Your task to perform on an android device: show emergency info Image 0: 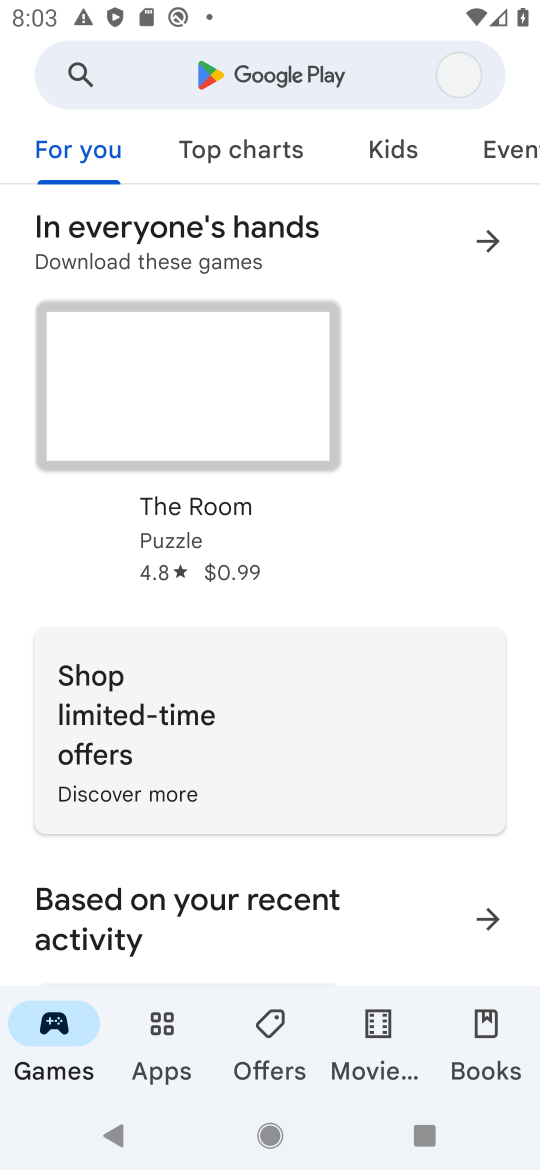
Step 0: press home button
Your task to perform on an android device: show emergency info Image 1: 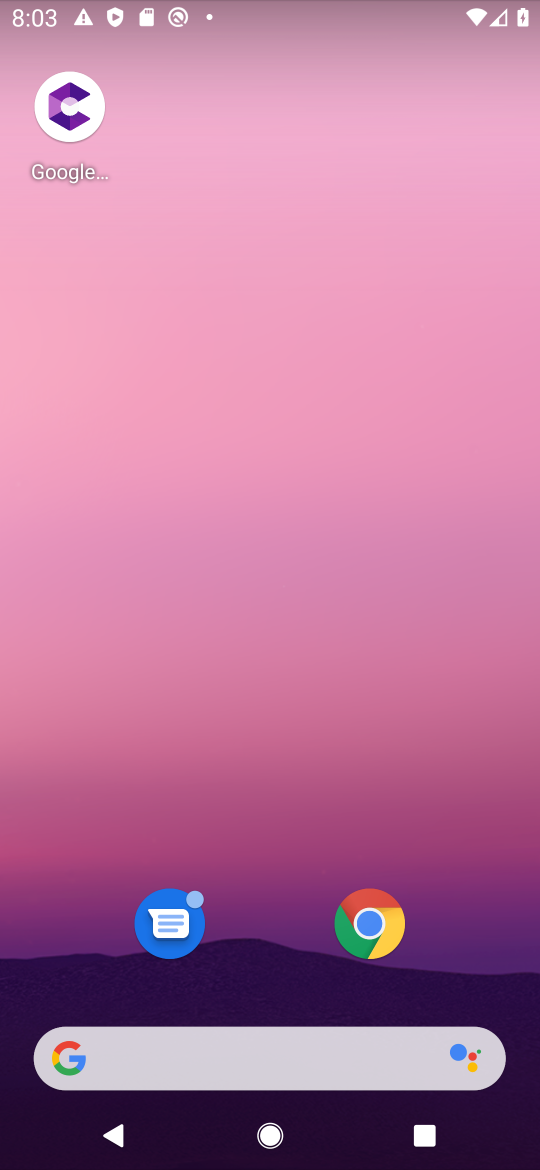
Step 1: drag from (518, 1111) to (412, 136)
Your task to perform on an android device: show emergency info Image 2: 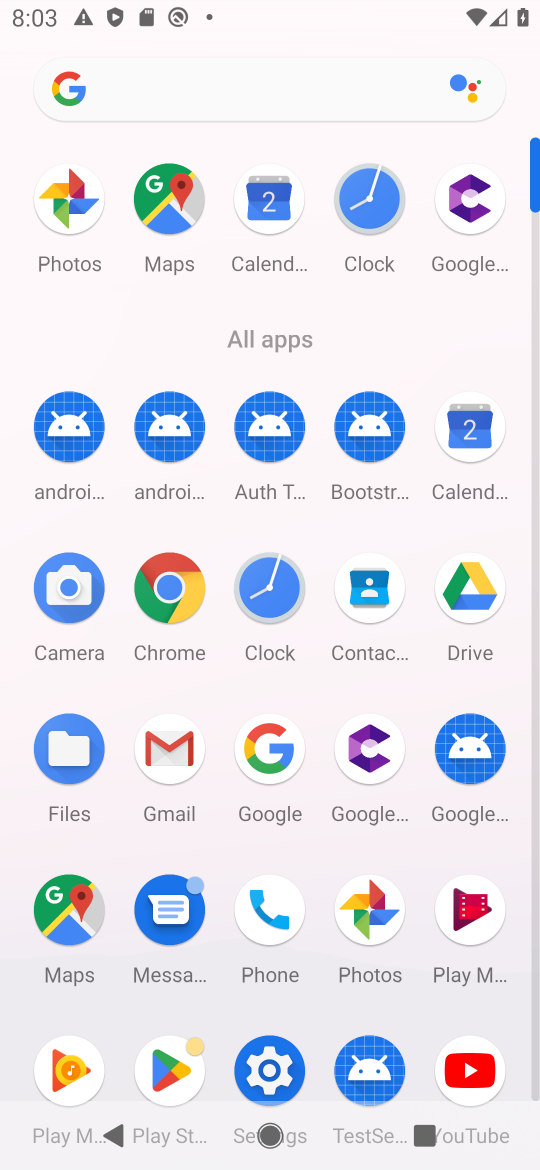
Step 2: drag from (267, 1062) to (123, 687)
Your task to perform on an android device: show emergency info Image 3: 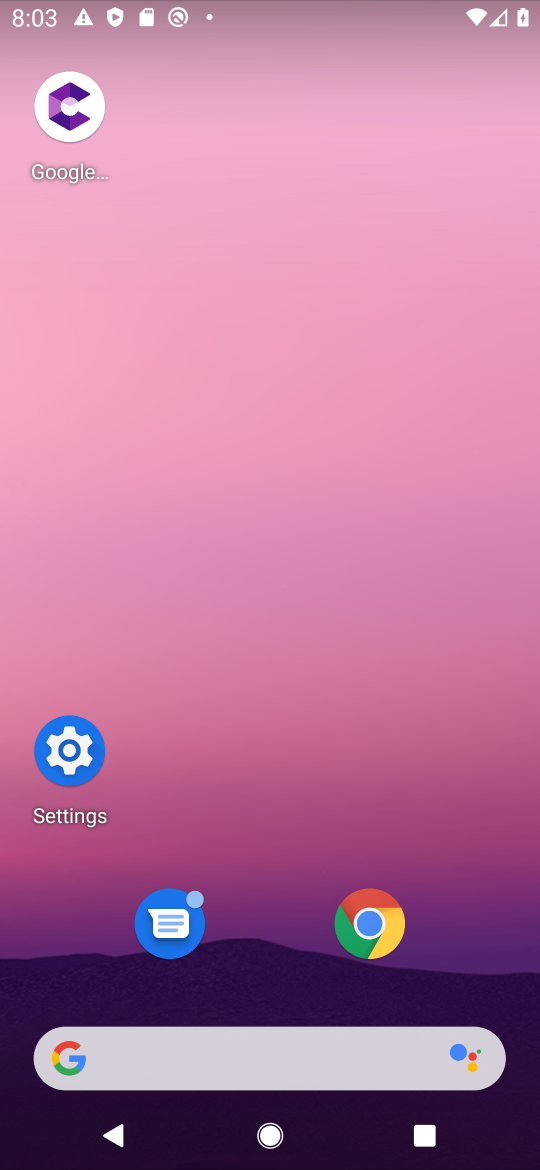
Step 3: click (64, 756)
Your task to perform on an android device: show emergency info Image 4: 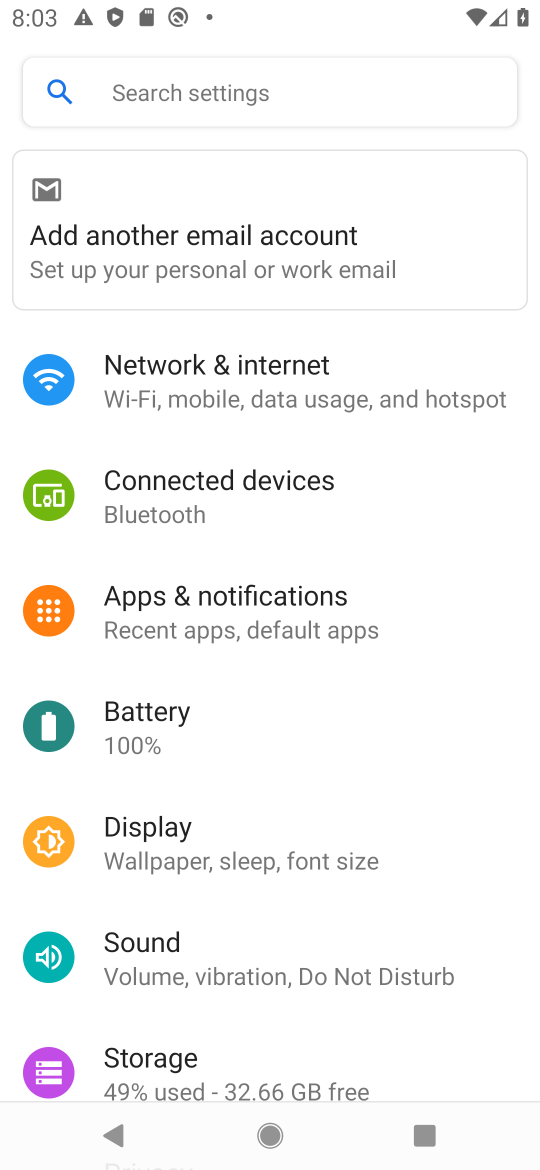
Step 4: drag from (466, 1076) to (394, 210)
Your task to perform on an android device: show emergency info Image 5: 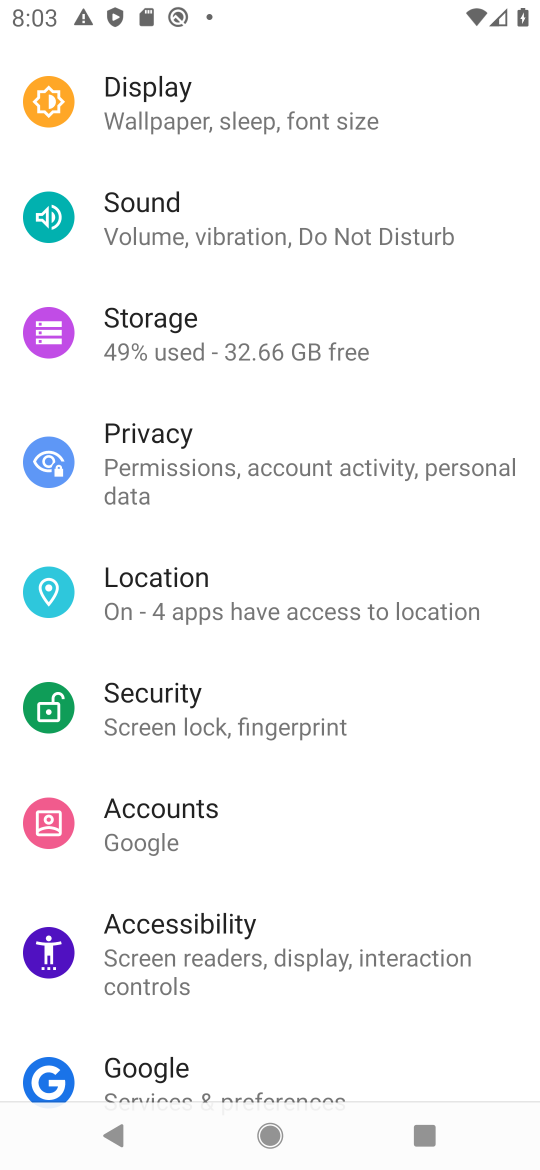
Step 5: drag from (396, 1052) to (397, 295)
Your task to perform on an android device: show emergency info Image 6: 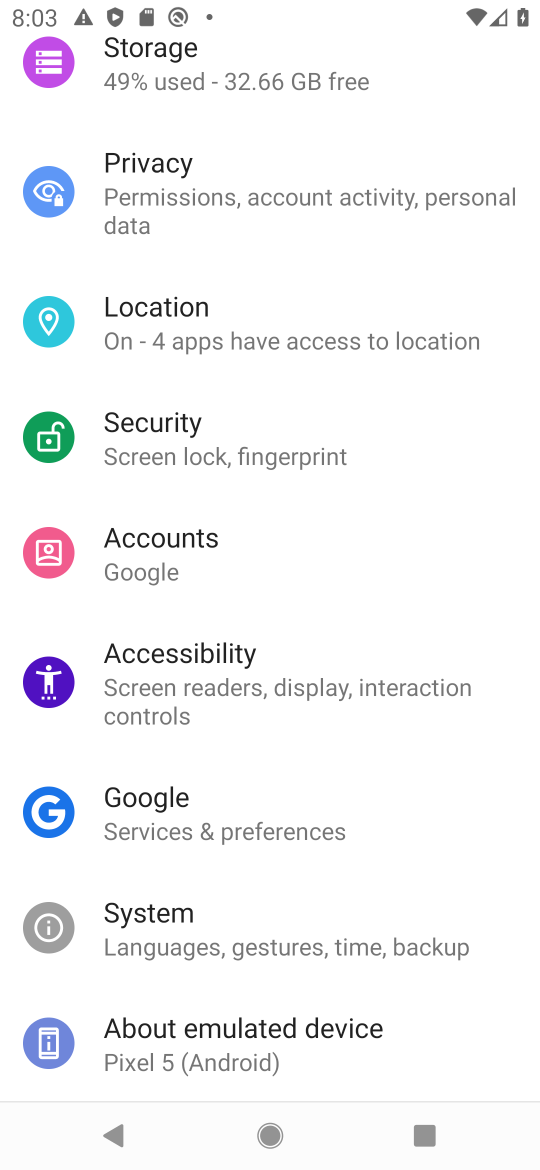
Step 6: click (174, 1039)
Your task to perform on an android device: show emergency info Image 7: 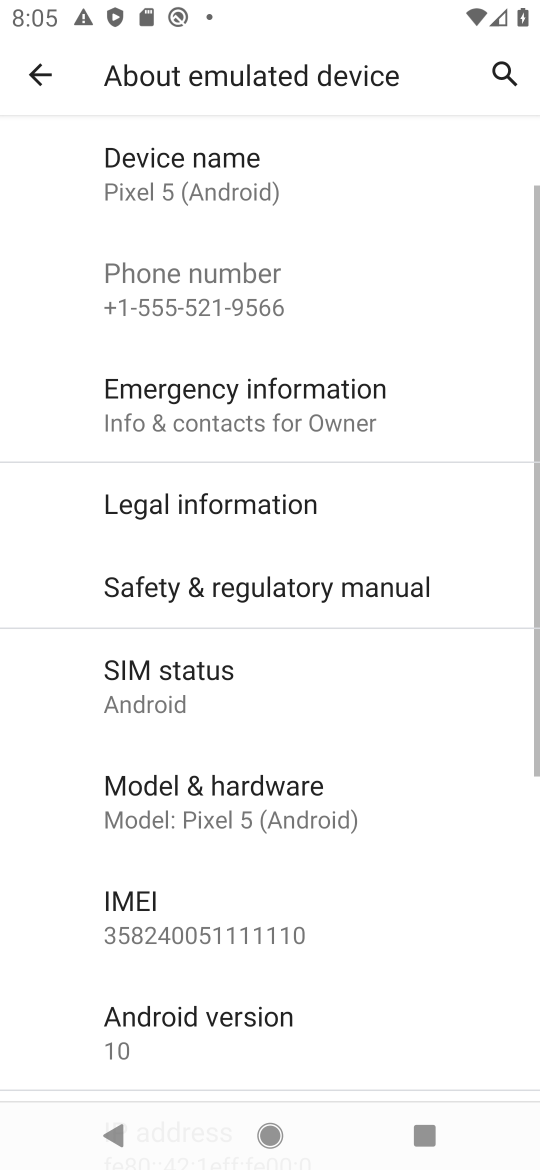
Step 7: click (244, 418)
Your task to perform on an android device: show emergency info Image 8: 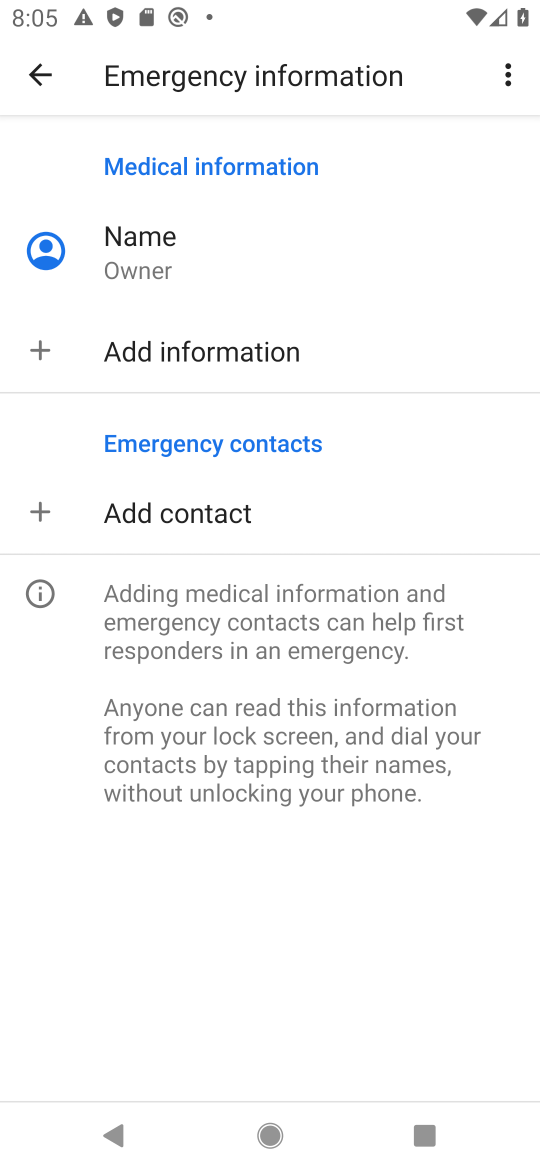
Step 8: task complete